Your task to perform on an android device: Set the phone to "Do not disturb". Image 0: 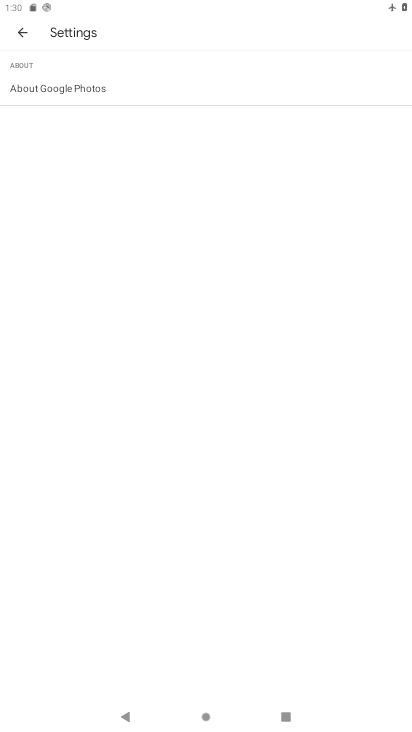
Step 0: press home button
Your task to perform on an android device: Set the phone to "Do not disturb". Image 1: 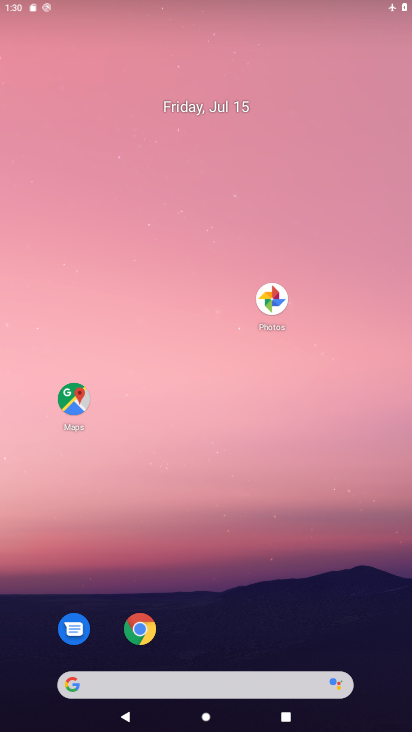
Step 1: drag from (173, 4) to (150, 383)
Your task to perform on an android device: Set the phone to "Do not disturb". Image 2: 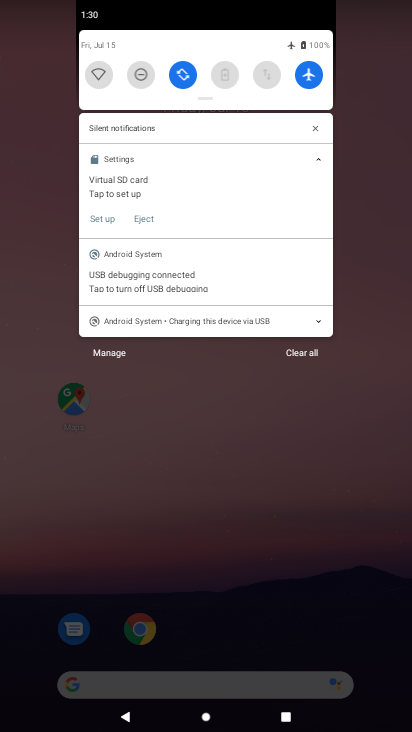
Step 2: click (136, 69)
Your task to perform on an android device: Set the phone to "Do not disturb". Image 3: 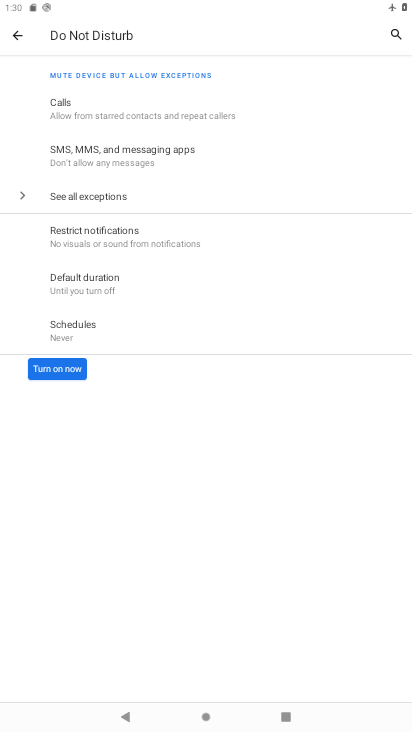
Step 3: click (71, 370)
Your task to perform on an android device: Set the phone to "Do not disturb". Image 4: 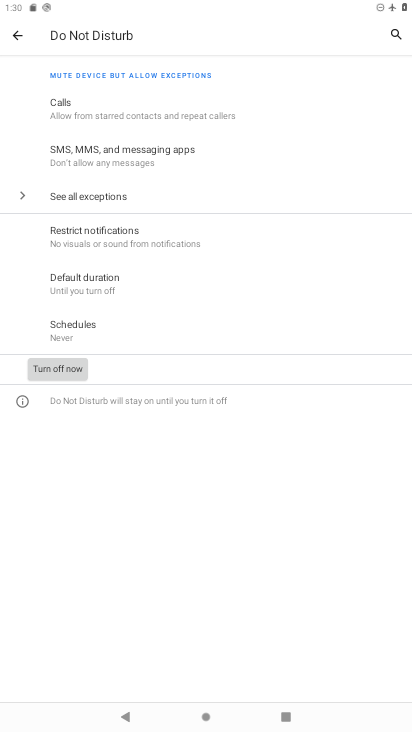
Step 4: task complete